Your task to perform on an android device: Open the map Image 0: 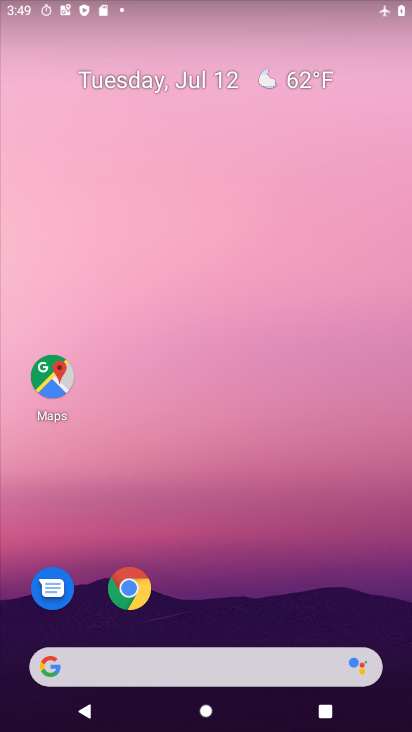
Step 0: drag from (294, 589) to (212, 9)
Your task to perform on an android device: Open the map Image 1: 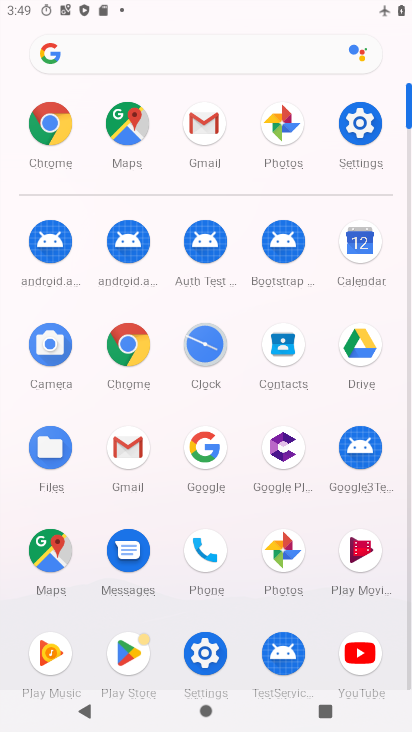
Step 1: click (47, 558)
Your task to perform on an android device: Open the map Image 2: 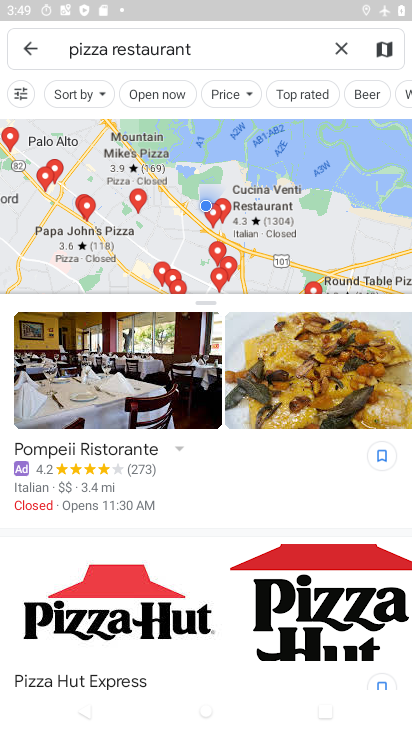
Step 2: task complete